Your task to perform on an android device: Open ESPN.com Image 0: 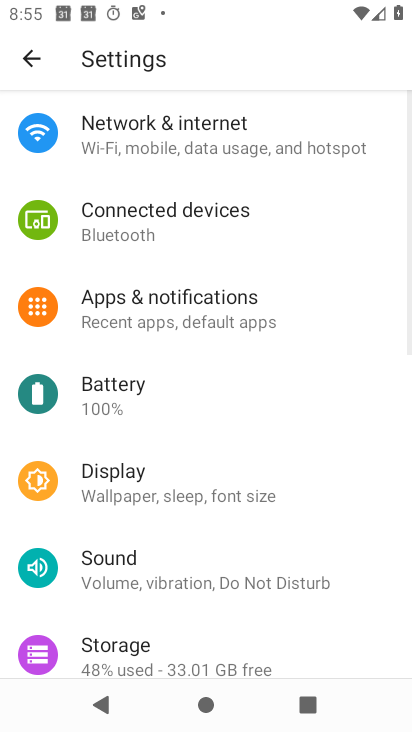
Step 0: press home button
Your task to perform on an android device: Open ESPN.com Image 1: 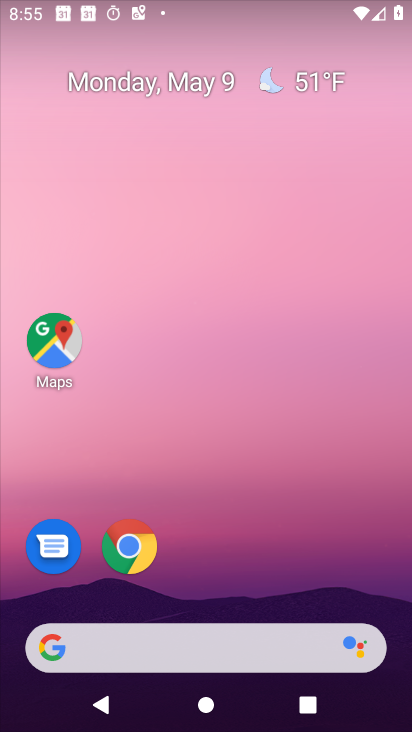
Step 1: click (129, 537)
Your task to perform on an android device: Open ESPN.com Image 2: 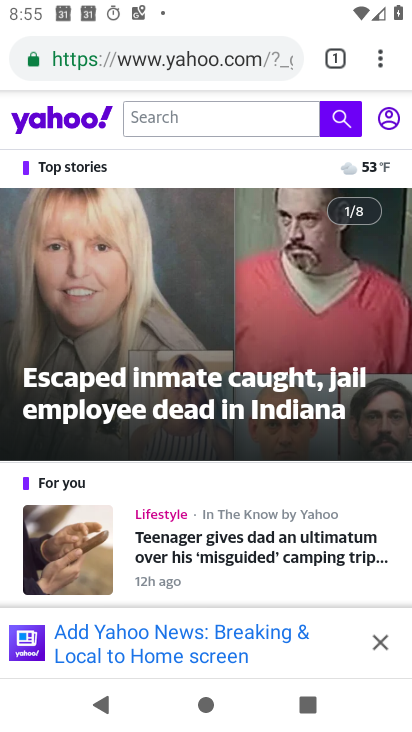
Step 2: click (244, 49)
Your task to perform on an android device: Open ESPN.com Image 3: 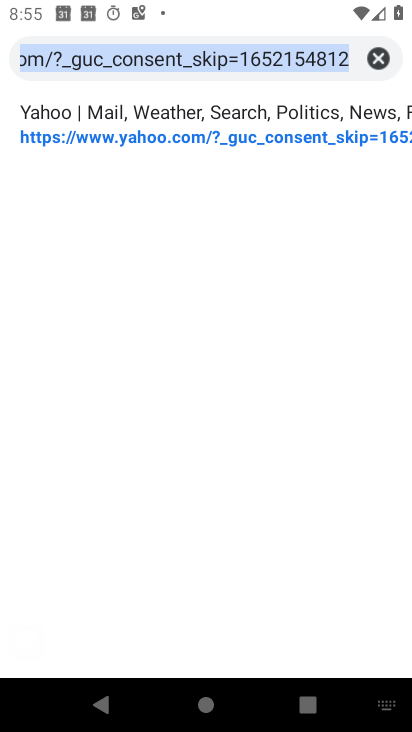
Step 3: click (382, 52)
Your task to perform on an android device: Open ESPN.com Image 4: 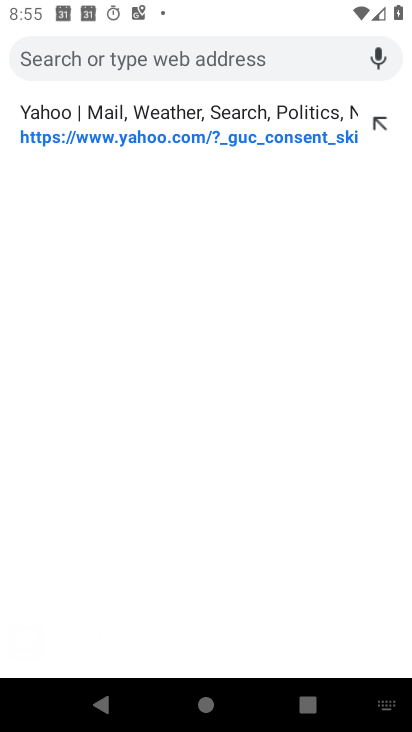
Step 4: type " ESPN.com"
Your task to perform on an android device: Open ESPN.com Image 5: 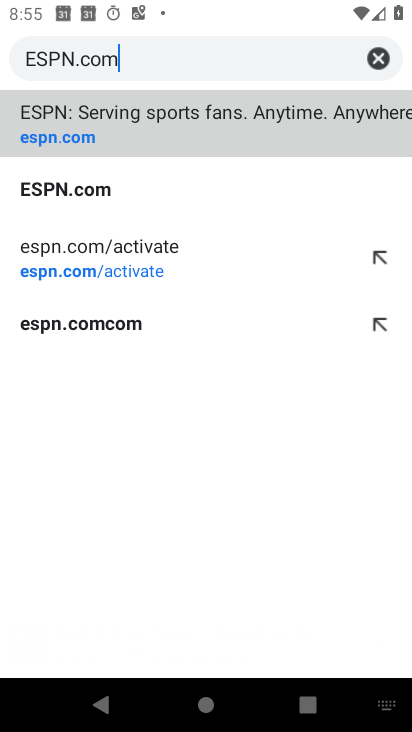
Step 5: click (87, 137)
Your task to perform on an android device: Open ESPN.com Image 6: 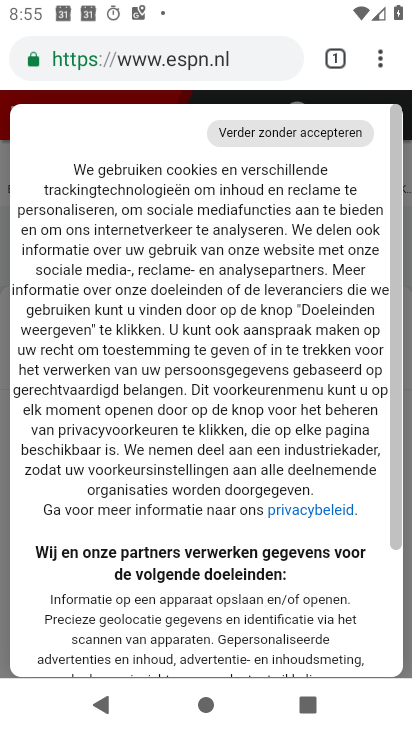
Step 6: task complete